Your task to perform on an android device: change the clock display to digital Image 0: 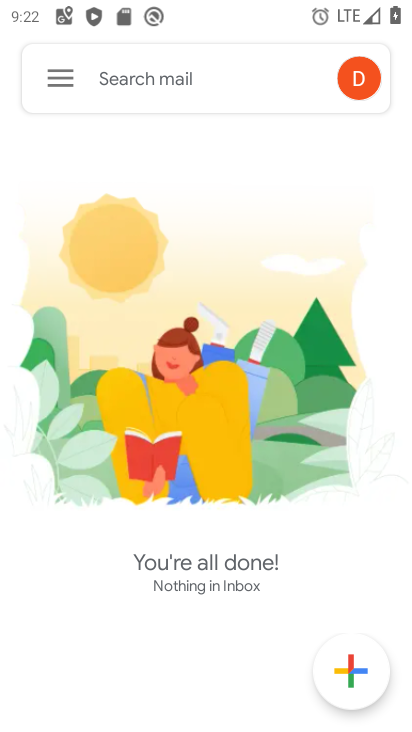
Step 0: press home button
Your task to perform on an android device: change the clock display to digital Image 1: 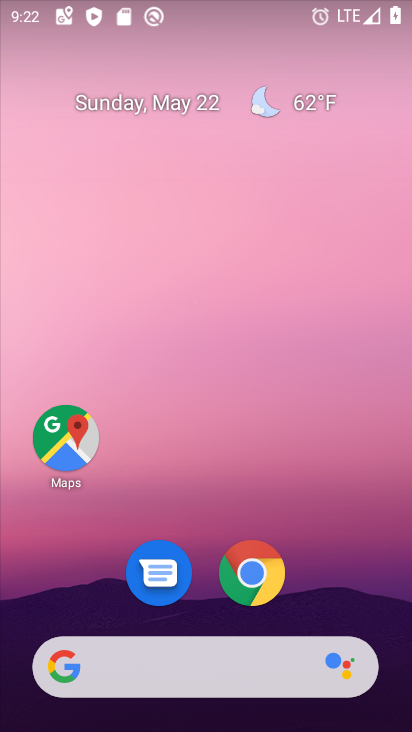
Step 1: drag from (208, 687) to (245, 35)
Your task to perform on an android device: change the clock display to digital Image 2: 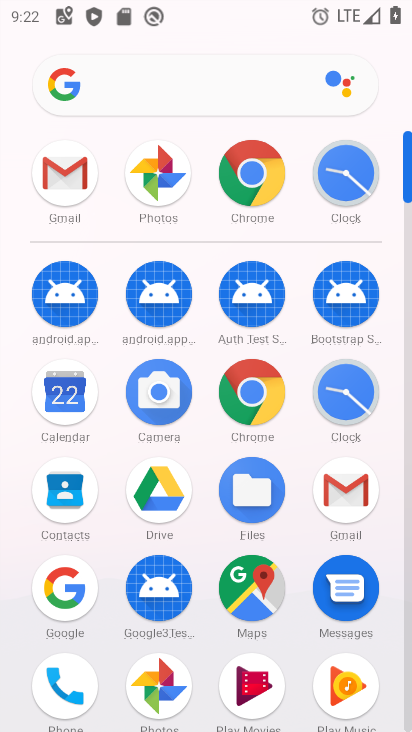
Step 2: click (349, 384)
Your task to perform on an android device: change the clock display to digital Image 3: 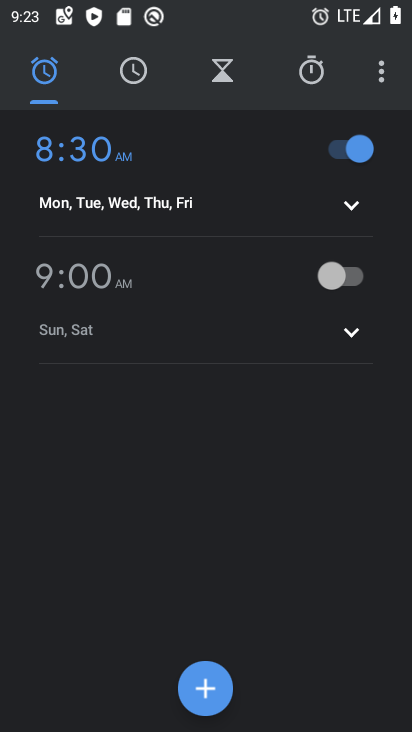
Step 3: click (377, 61)
Your task to perform on an android device: change the clock display to digital Image 4: 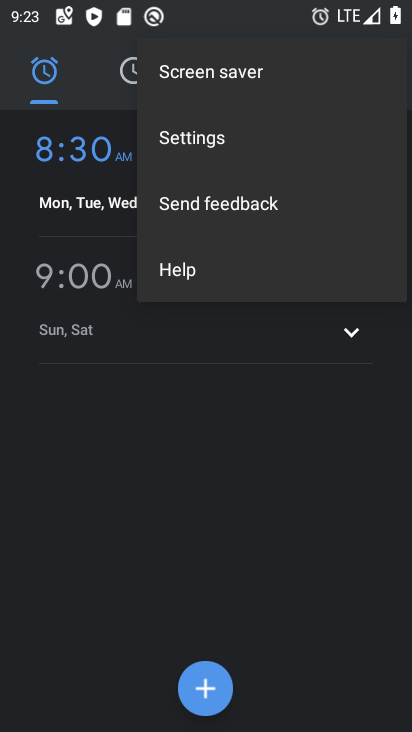
Step 4: click (236, 140)
Your task to perform on an android device: change the clock display to digital Image 5: 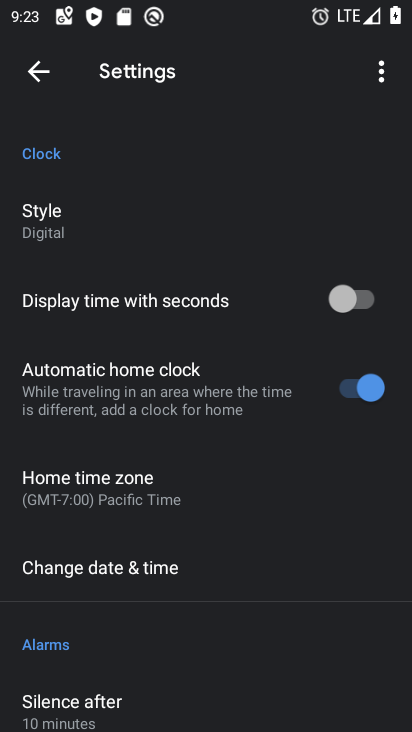
Step 5: task complete